Your task to perform on an android device: Set the phone to "Do not disturb". Image 0: 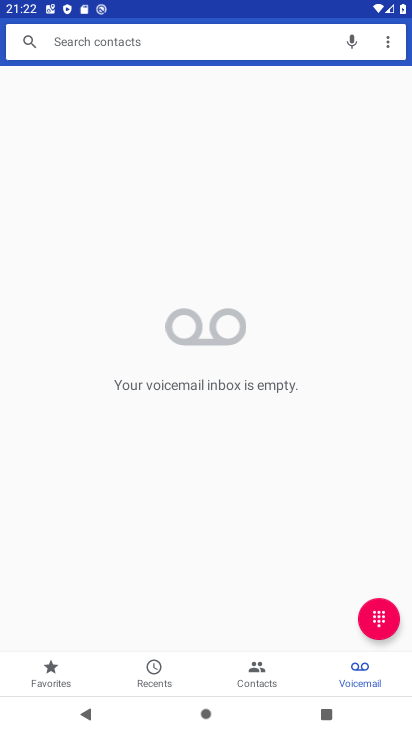
Step 0: press home button
Your task to perform on an android device: Set the phone to "Do not disturb". Image 1: 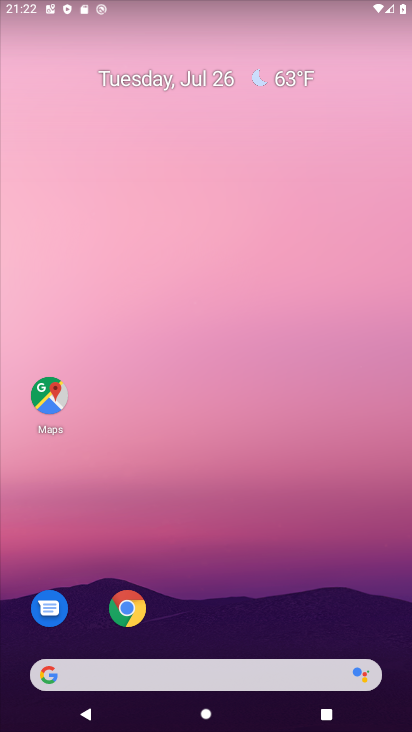
Step 1: drag from (56, 672) to (250, 94)
Your task to perform on an android device: Set the phone to "Do not disturb". Image 2: 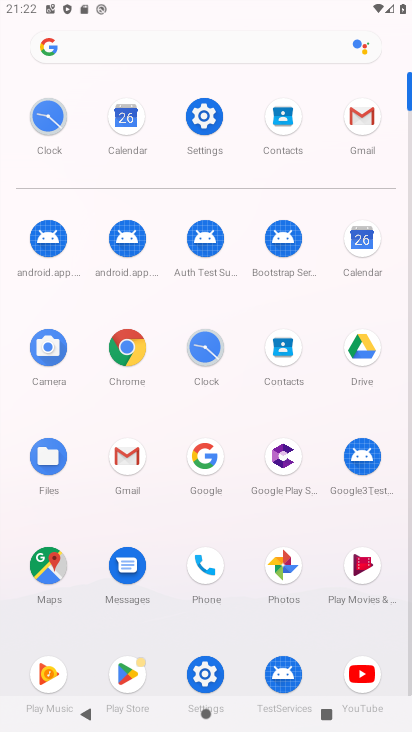
Step 2: click (202, 672)
Your task to perform on an android device: Set the phone to "Do not disturb". Image 3: 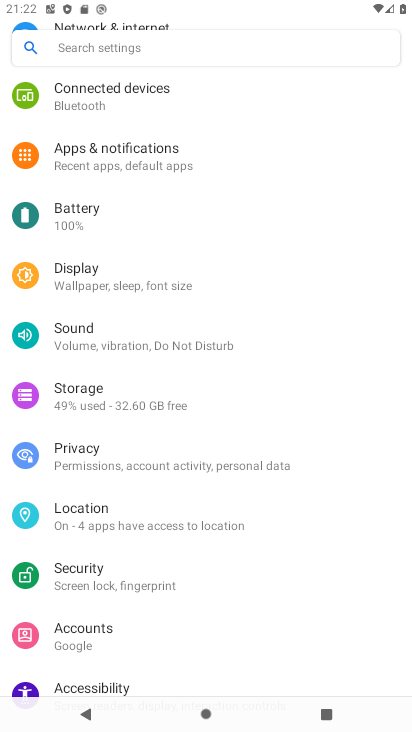
Step 3: click (139, 336)
Your task to perform on an android device: Set the phone to "Do not disturb". Image 4: 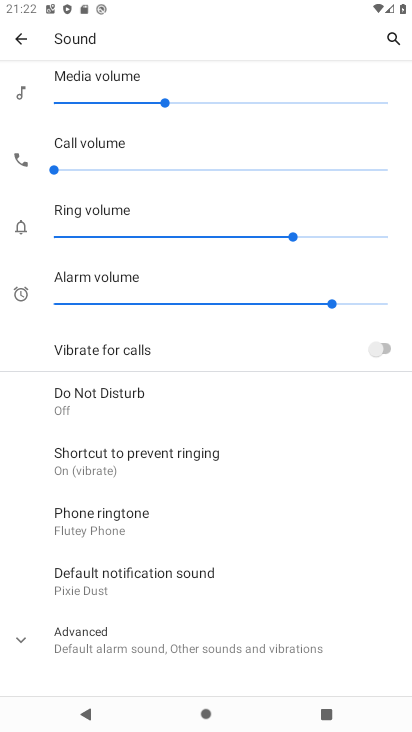
Step 4: click (125, 392)
Your task to perform on an android device: Set the phone to "Do not disturb". Image 5: 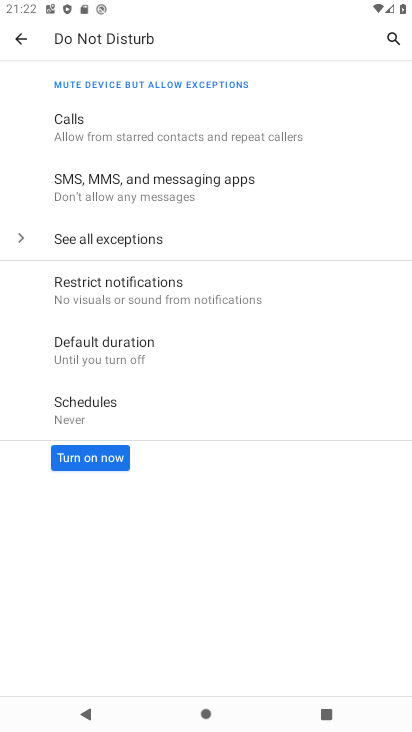
Step 5: click (99, 453)
Your task to perform on an android device: Set the phone to "Do not disturb". Image 6: 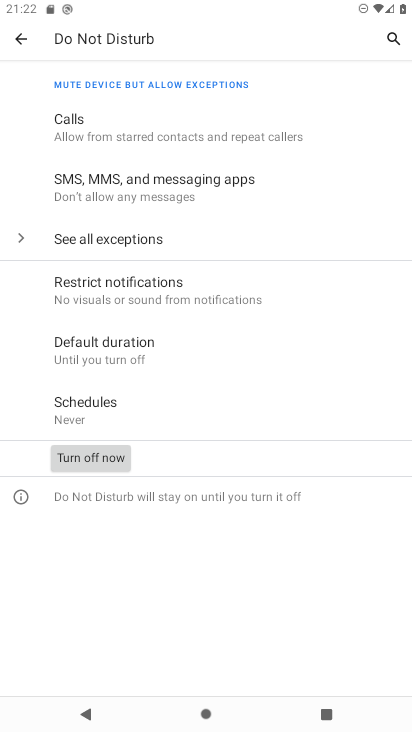
Step 6: task complete